Your task to perform on an android device: clear all cookies in the chrome app Image 0: 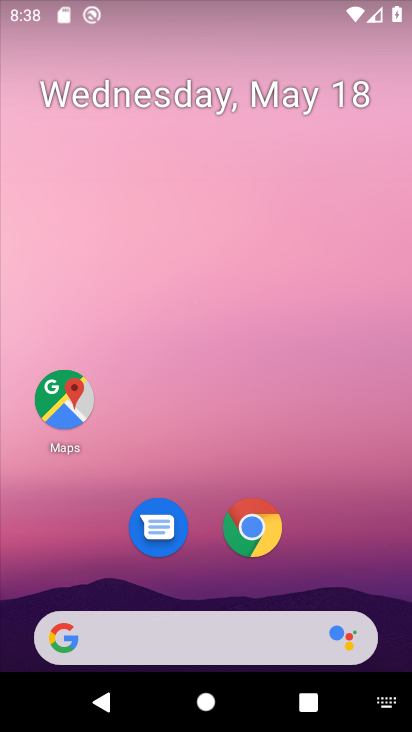
Step 0: click (244, 544)
Your task to perform on an android device: clear all cookies in the chrome app Image 1: 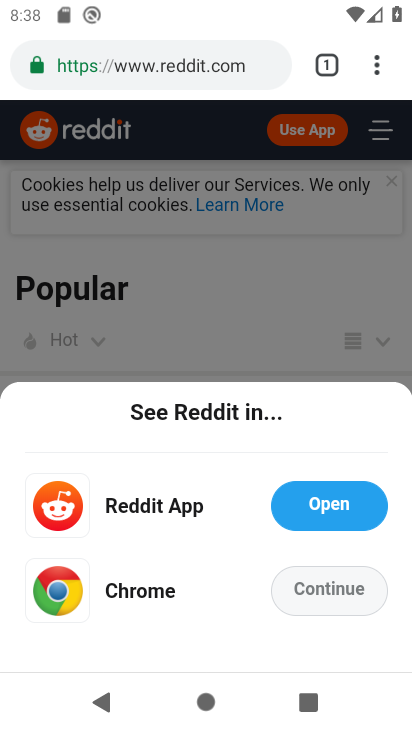
Step 1: click (334, 595)
Your task to perform on an android device: clear all cookies in the chrome app Image 2: 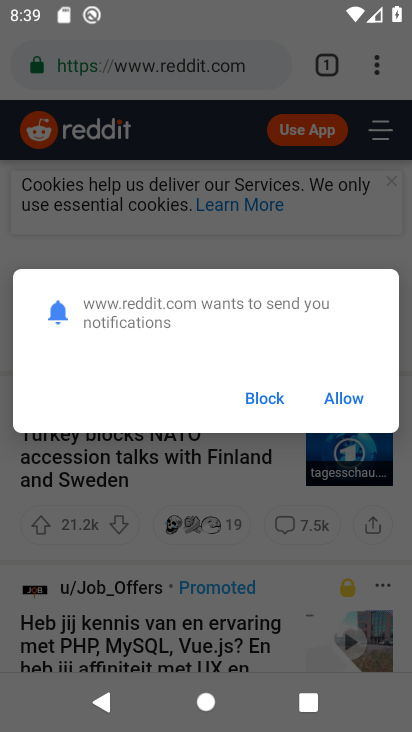
Step 2: click (380, 78)
Your task to perform on an android device: clear all cookies in the chrome app Image 3: 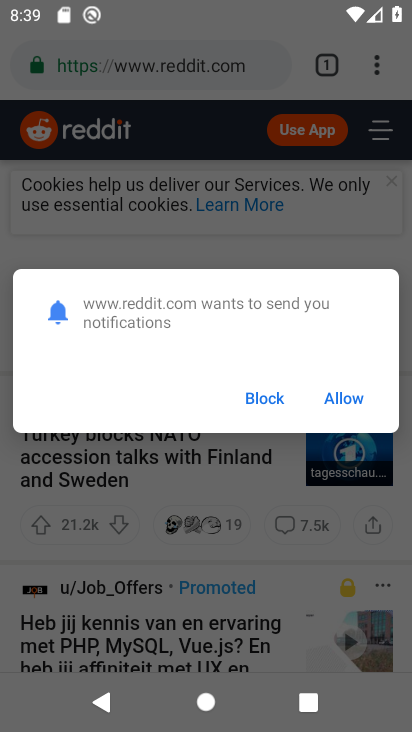
Step 3: click (274, 394)
Your task to perform on an android device: clear all cookies in the chrome app Image 4: 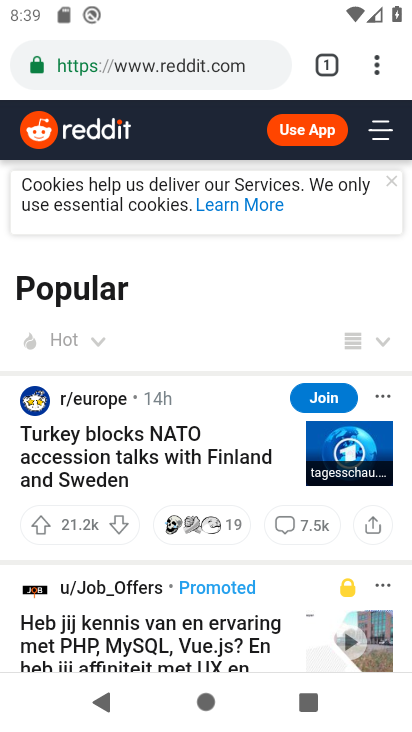
Step 4: click (380, 72)
Your task to perform on an android device: clear all cookies in the chrome app Image 5: 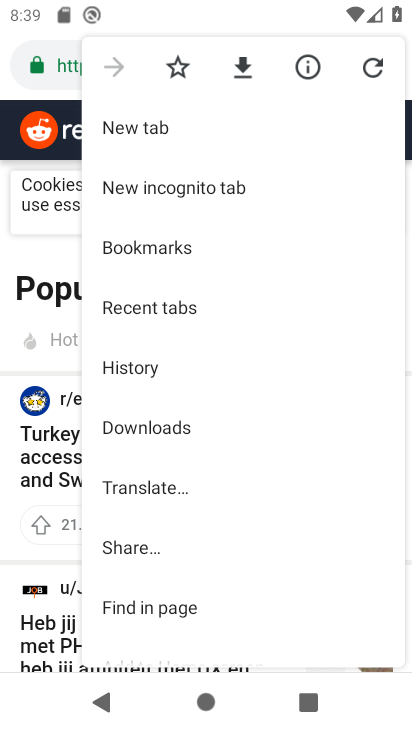
Step 5: drag from (161, 396) to (154, 239)
Your task to perform on an android device: clear all cookies in the chrome app Image 6: 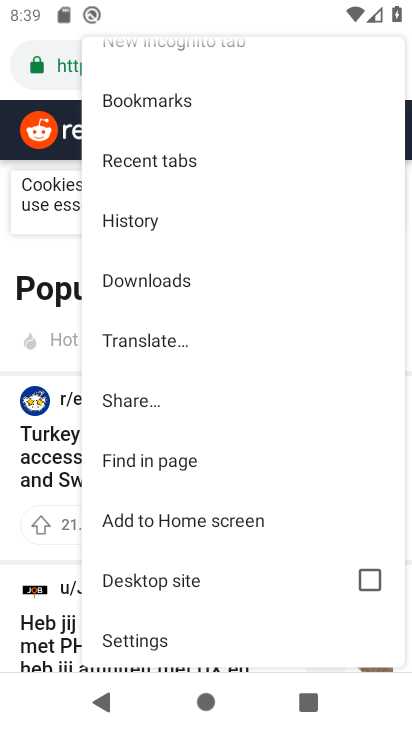
Step 6: drag from (168, 604) to (176, 322)
Your task to perform on an android device: clear all cookies in the chrome app Image 7: 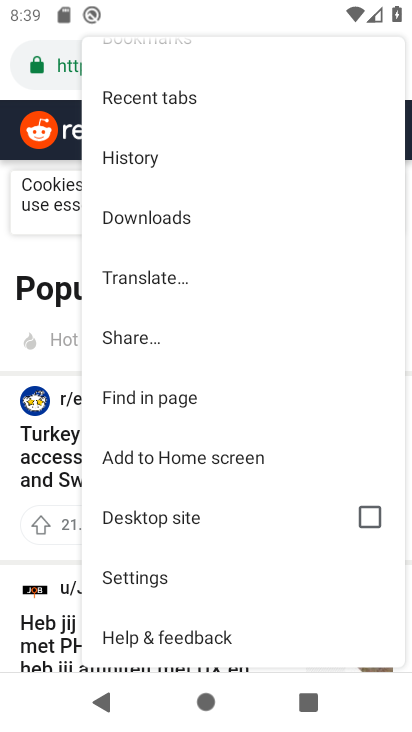
Step 7: click (136, 157)
Your task to perform on an android device: clear all cookies in the chrome app Image 8: 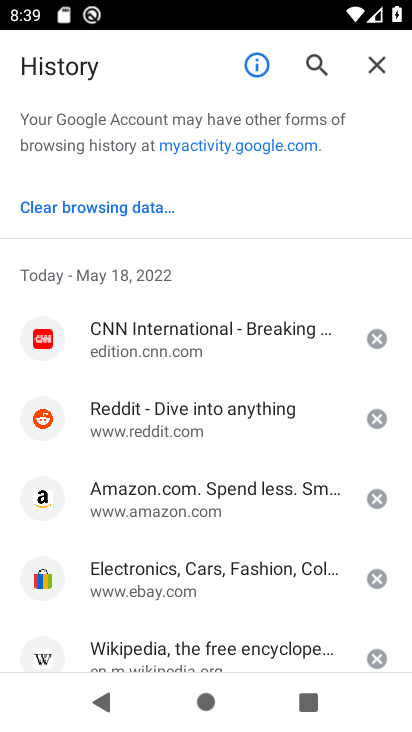
Step 8: click (158, 215)
Your task to perform on an android device: clear all cookies in the chrome app Image 9: 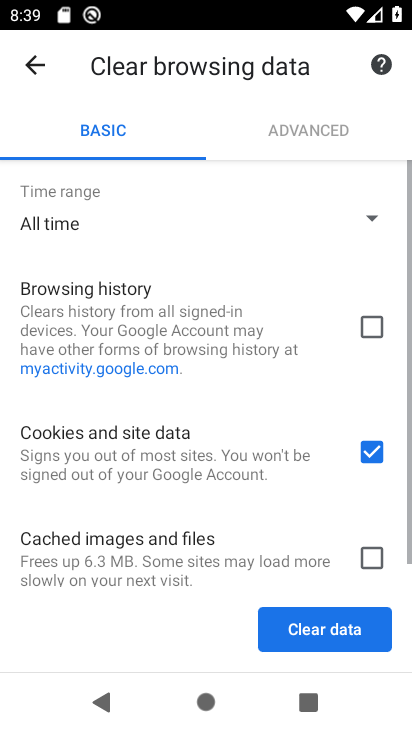
Step 9: click (313, 635)
Your task to perform on an android device: clear all cookies in the chrome app Image 10: 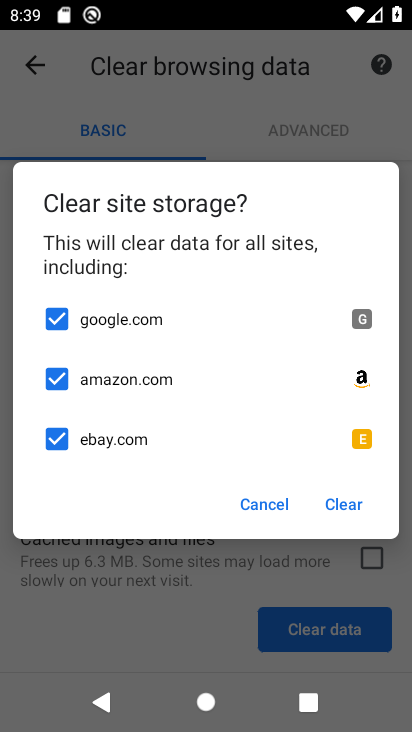
Step 10: click (358, 504)
Your task to perform on an android device: clear all cookies in the chrome app Image 11: 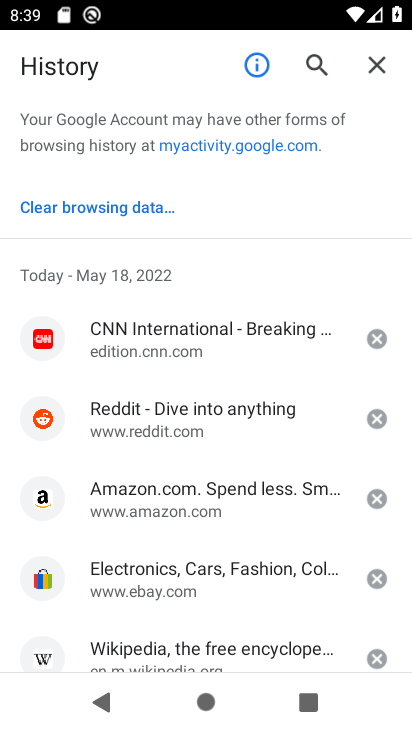
Step 11: task complete